Your task to perform on an android device: move an email to a new category in the gmail app Image 0: 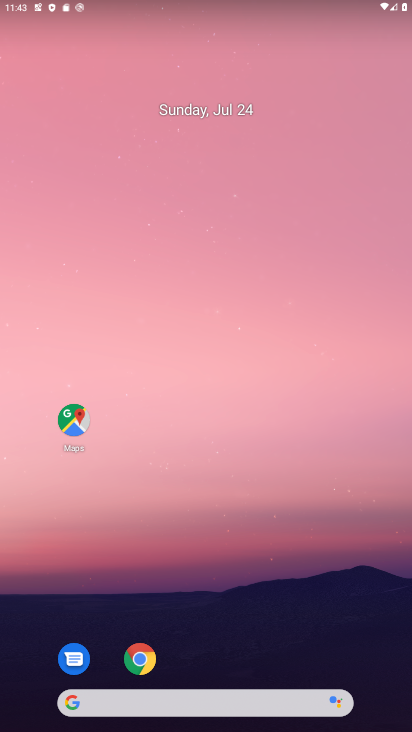
Step 0: drag from (20, 673) to (302, 34)
Your task to perform on an android device: move an email to a new category in the gmail app Image 1: 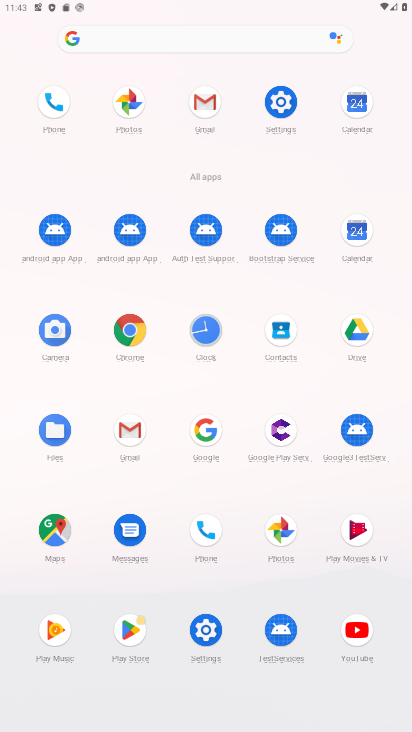
Step 1: click (129, 457)
Your task to perform on an android device: move an email to a new category in the gmail app Image 2: 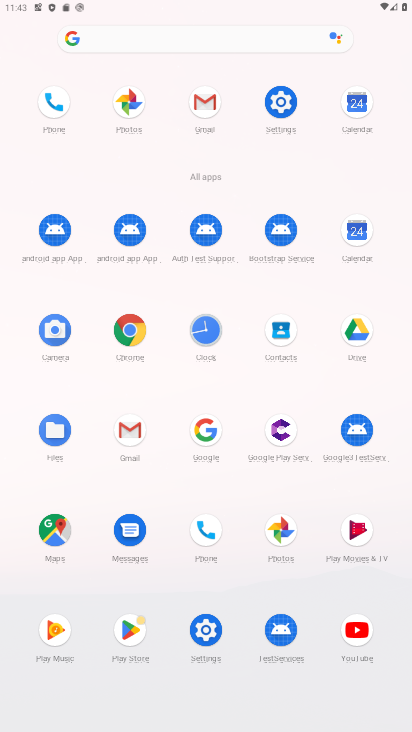
Step 2: click (134, 421)
Your task to perform on an android device: move an email to a new category in the gmail app Image 3: 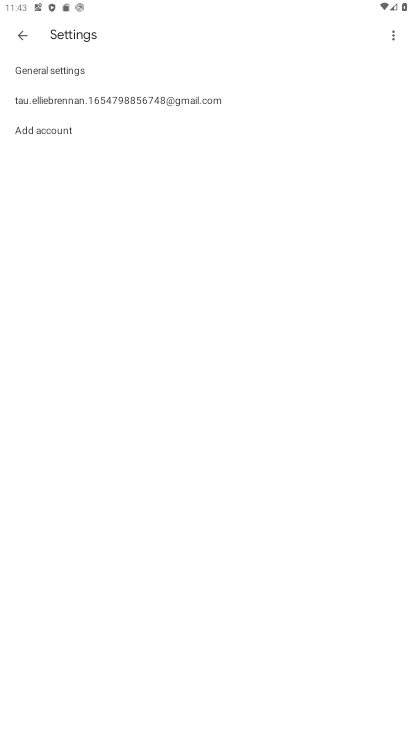
Step 3: click (26, 37)
Your task to perform on an android device: move an email to a new category in the gmail app Image 4: 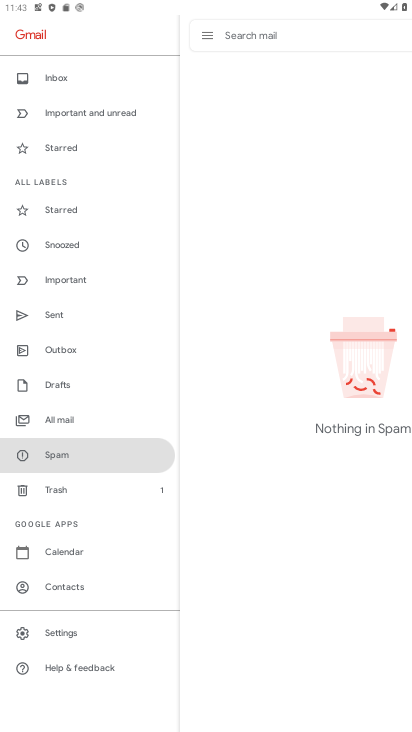
Step 4: click (58, 73)
Your task to perform on an android device: move an email to a new category in the gmail app Image 5: 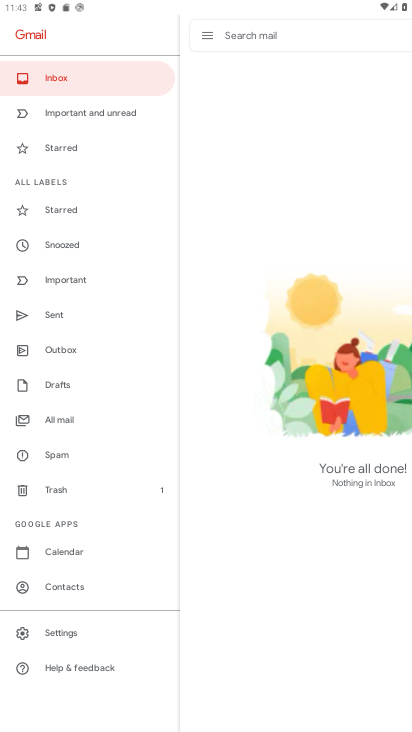
Step 5: task complete